Your task to perform on an android device: open app "NewsBreak: Local News & Alerts" (install if not already installed) and enter user name: "switch@outlook.com" and password: "fabrics" Image 0: 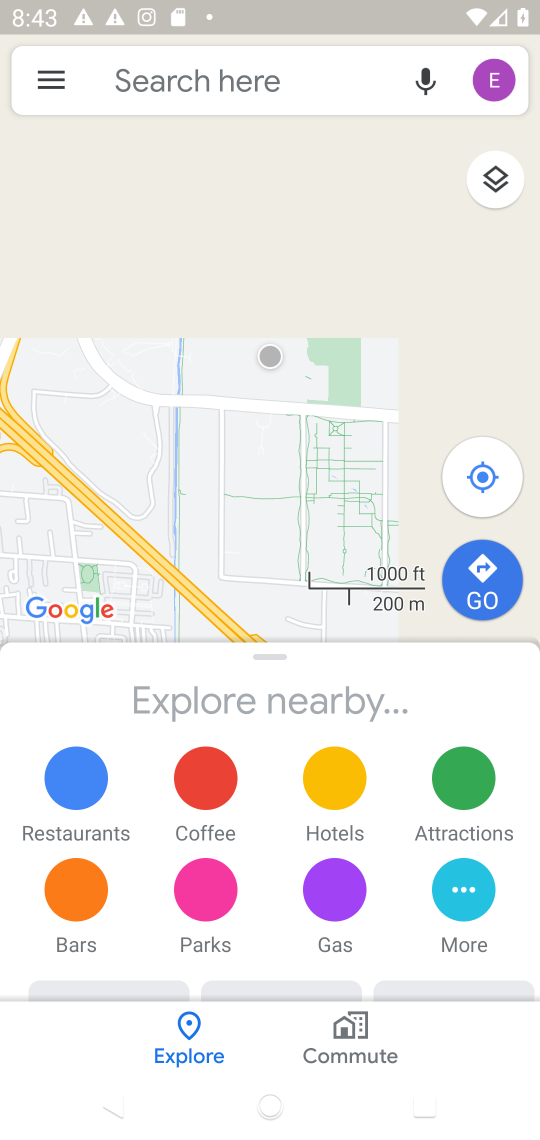
Step 0: press home button
Your task to perform on an android device: open app "NewsBreak: Local News & Alerts" (install if not already installed) and enter user name: "switch@outlook.com" and password: "fabrics" Image 1: 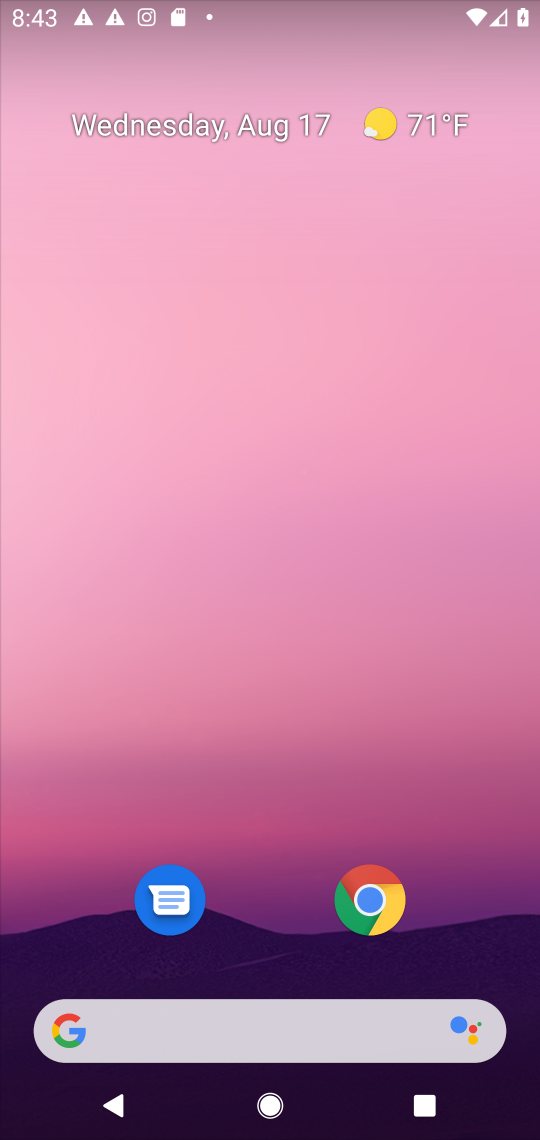
Step 1: drag from (272, 919) to (230, 94)
Your task to perform on an android device: open app "NewsBreak: Local News & Alerts" (install if not already installed) and enter user name: "switch@outlook.com" and password: "fabrics" Image 2: 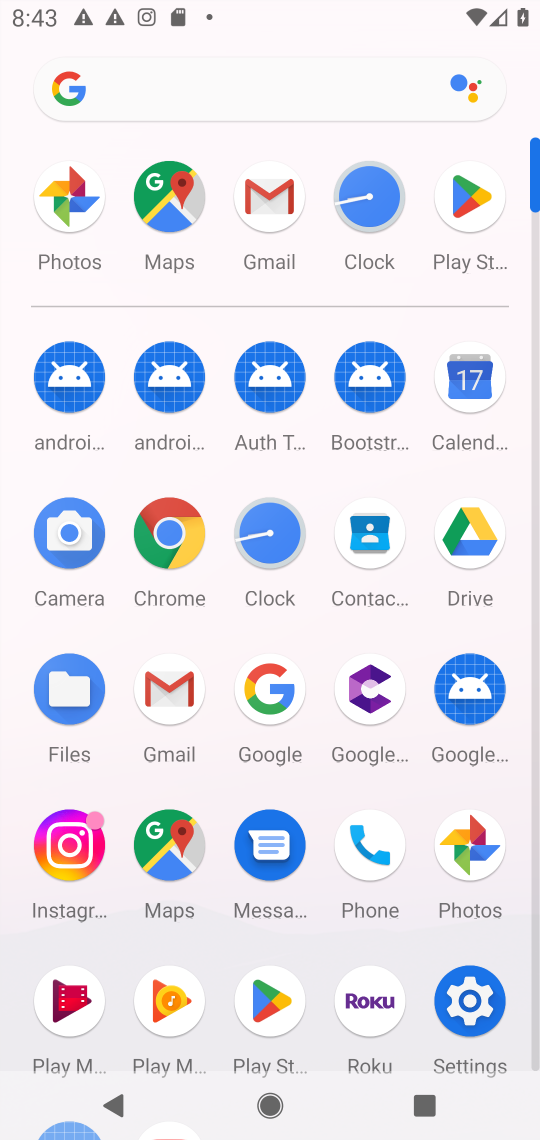
Step 2: click (481, 217)
Your task to perform on an android device: open app "NewsBreak: Local News & Alerts" (install if not already installed) and enter user name: "switch@outlook.com" and password: "fabrics" Image 3: 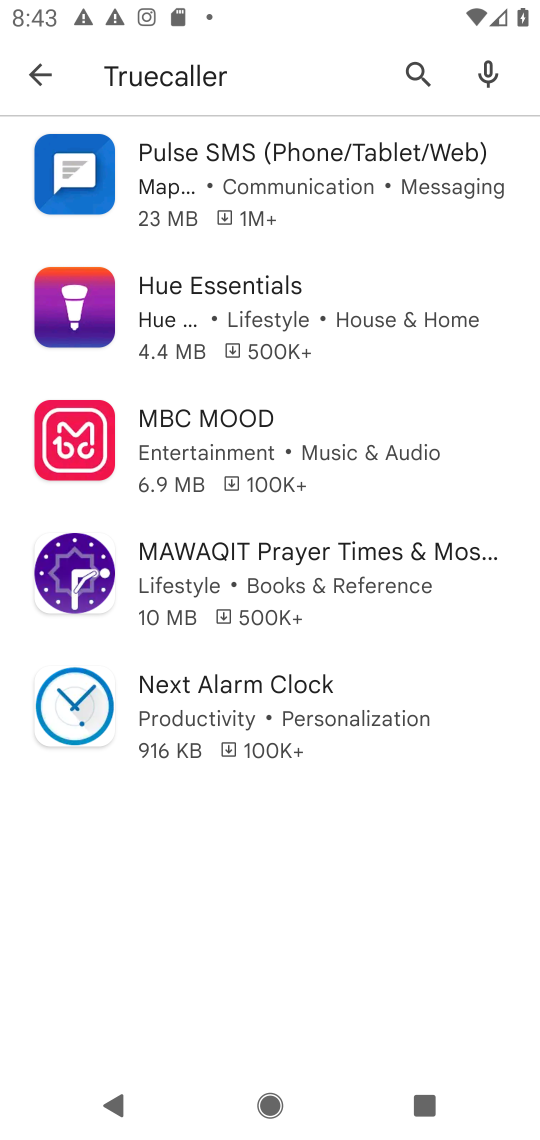
Step 3: click (54, 76)
Your task to perform on an android device: open app "NewsBreak: Local News & Alerts" (install if not already installed) and enter user name: "switch@outlook.com" and password: "fabrics" Image 4: 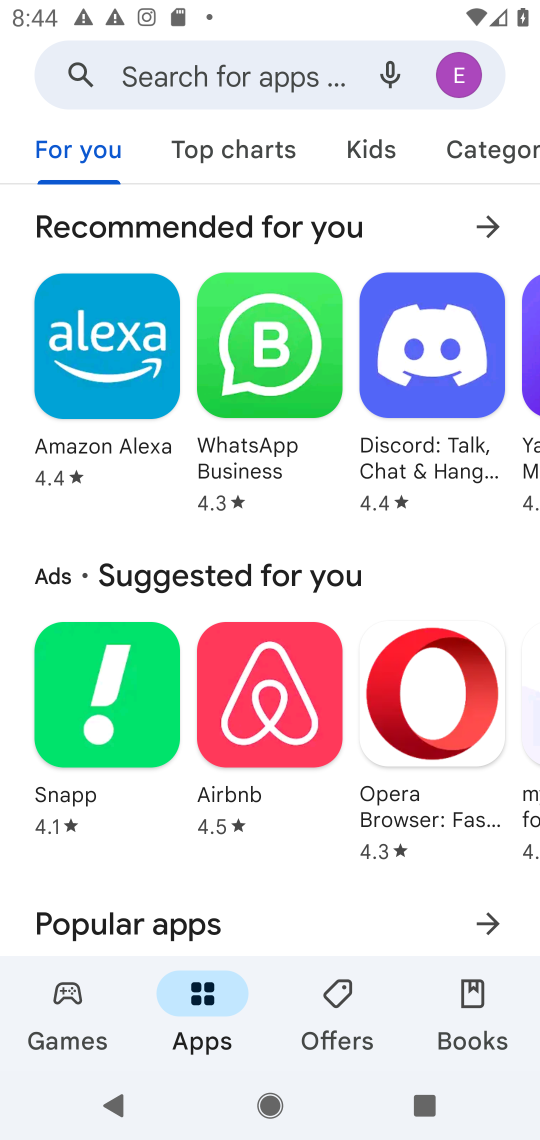
Step 4: click (252, 63)
Your task to perform on an android device: open app "NewsBreak: Local News & Alerts" (install if not already installed) and enter user name: "switch@outlook.com" and password: "fabrics" Image 5: 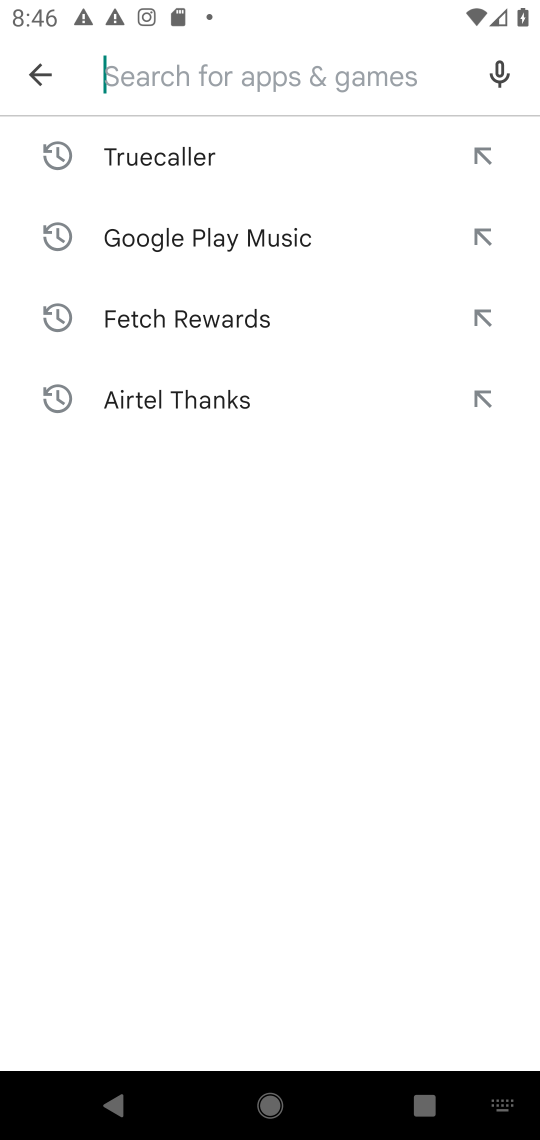
Step 5: type "NewsBreak: Local News & Alerts"
Your task to perform on an android device: open app "NewsBreak: Local News & Alerts" (install if not already installed) and enter user name: "switch@outlook.com" and password: "fabrics" Image 6: 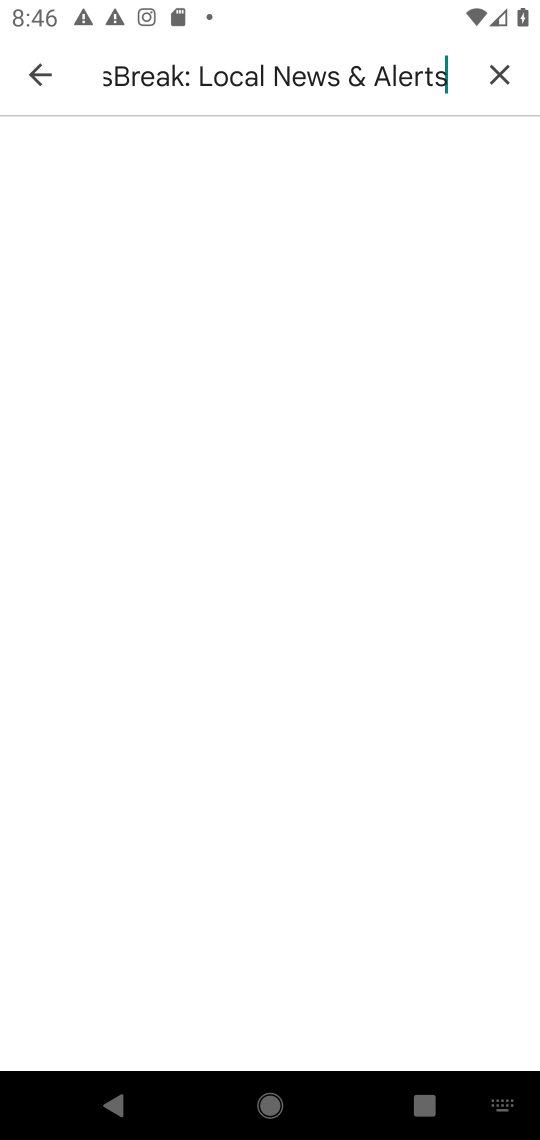
Step 6: press enter
Your task to perform on an android device: open app "NewsBreak: Local News & Alerts" (install if not already installed) and enter user name: "switch@outlook.com" and password: "fabrics" Image 7: 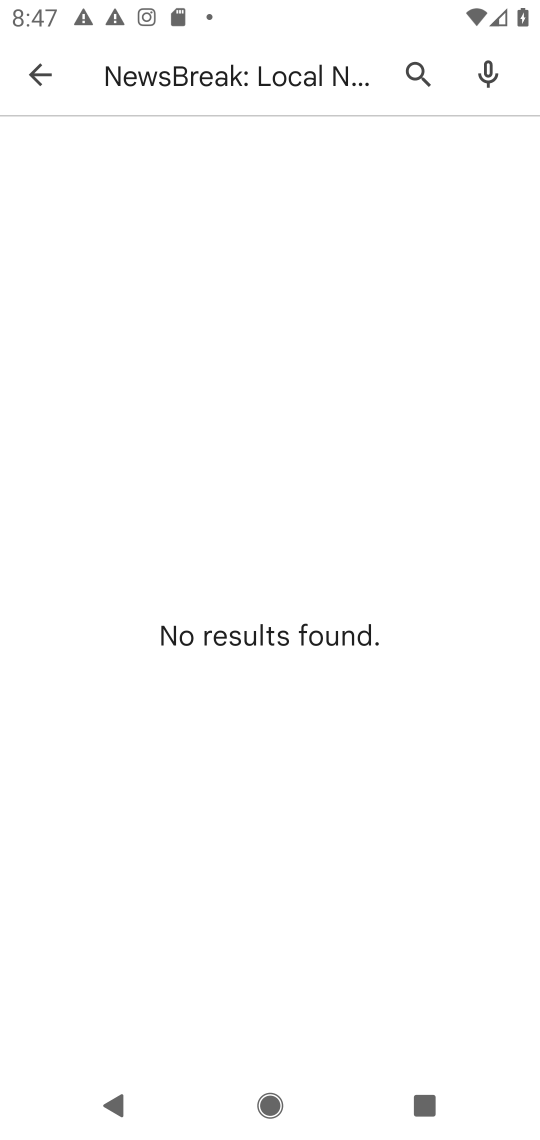
Step 7: task complete